Your task to perform on an android device: see sites visited before in the chrome app Image 0: 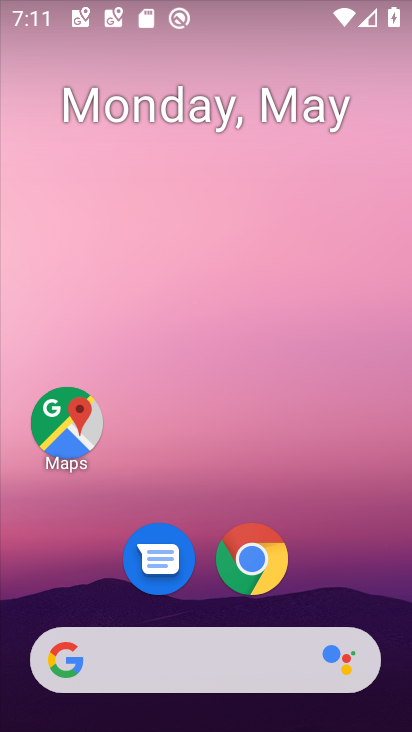
Step 0: drag from (381, 638) to (354, 140)
Your task to perform on an android device: see sites visited before in the chrome app Image 1: 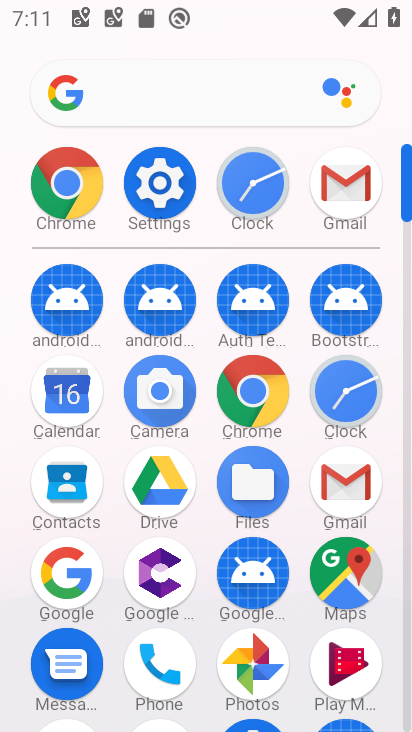
Step 1: click (56, 165)
Your task to perform on an android device: see sites visited before in the chrome app Image 2: 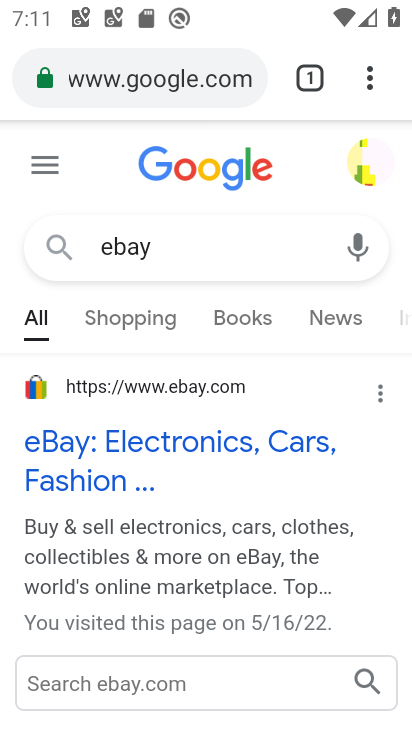
Step 2: press back button
Your task to perform on an android device: see sites visited before in the chrome app Image 3: 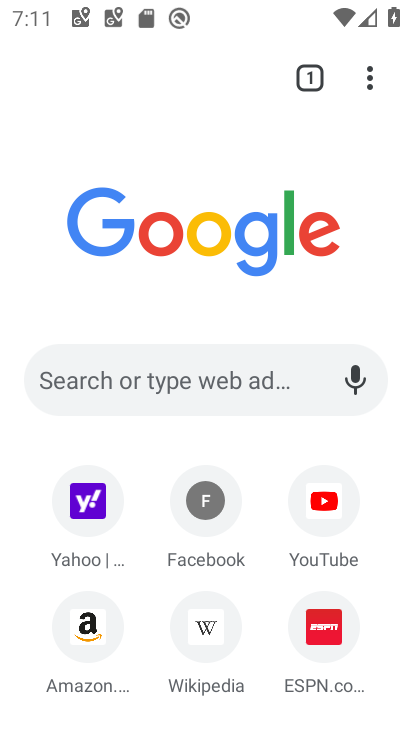
Step 3: click (371, 60)
Your task to perform on an android device: see sites visited before in the chrome app Image 4: 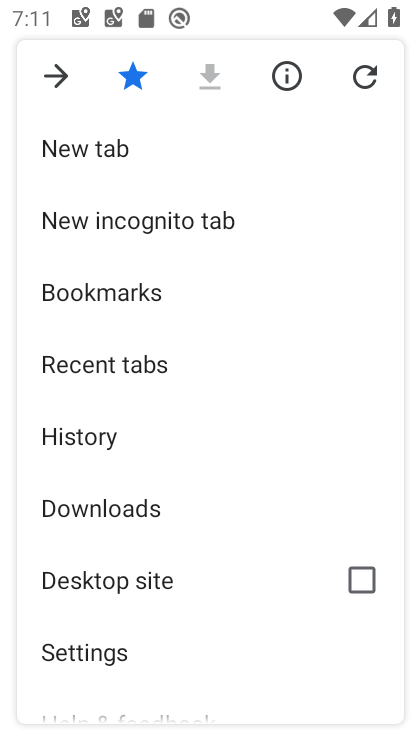
Step 4: click (140, 441)
Your task to perform on an android device: see sites visited before in the chrome app Image 5: 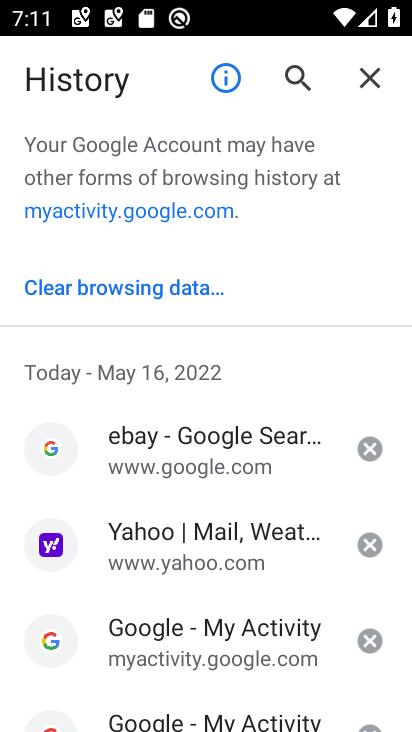
Step 5: click (141, 431)
Your task to perform on an android device: see sites visited before in the chrome app Image 6: 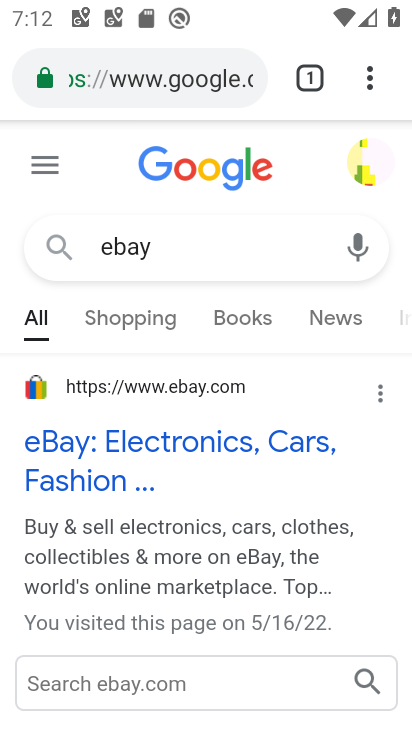
Step 6: task complete